Your task to perform on an android device: Open Chrome and go to the settings page Image 0: 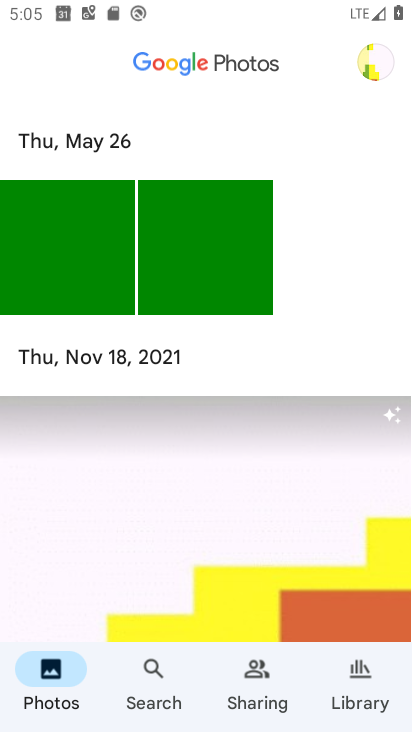
Step 0: press home button
Your task to perform on an android device: Open Chrome and go to the settings page Image 1: 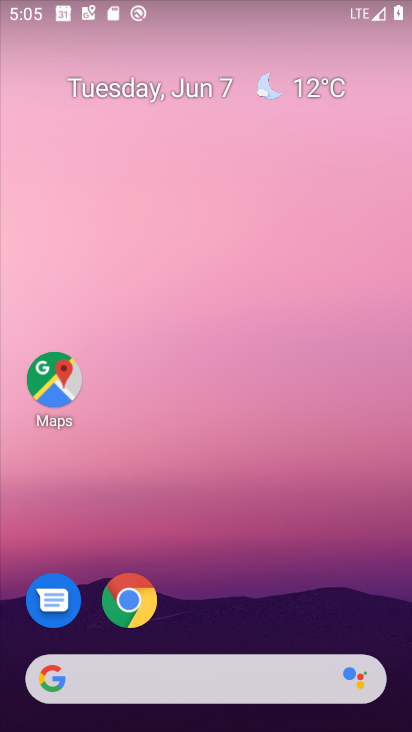
Step 1: drag from (310, 567) to (218, 77)
Your task to perform on an android device: Open Chrome and go to the settings page Image 2: 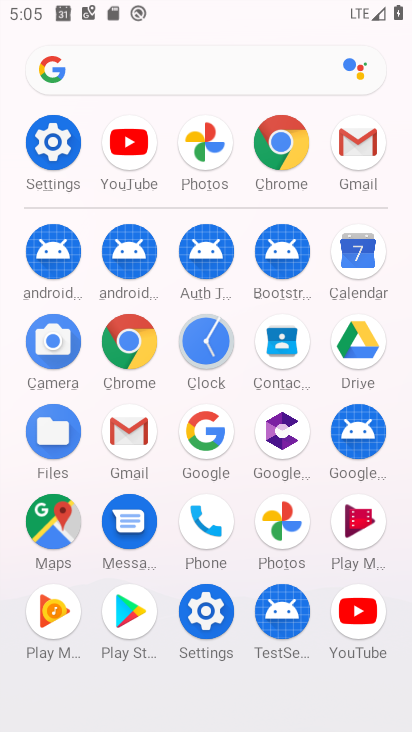
Step 2: click (272, 144)
Your task to perform on an android device: Open Chrome and go to the settings page Image 3: 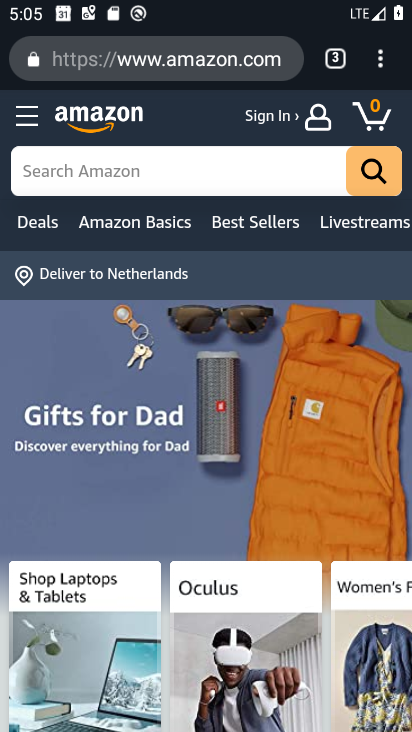
Step 3: task complete